Your task to perform on an android device: turn off smart reply in the gmail app Image 0: 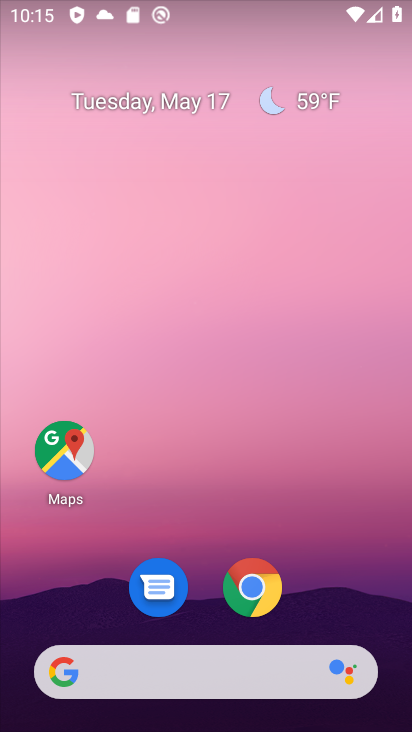
Step 0: drag from (339, 573) to (269, 53)
Your task to perform on an android device: turn off smart reply in the gmail app Image 1: 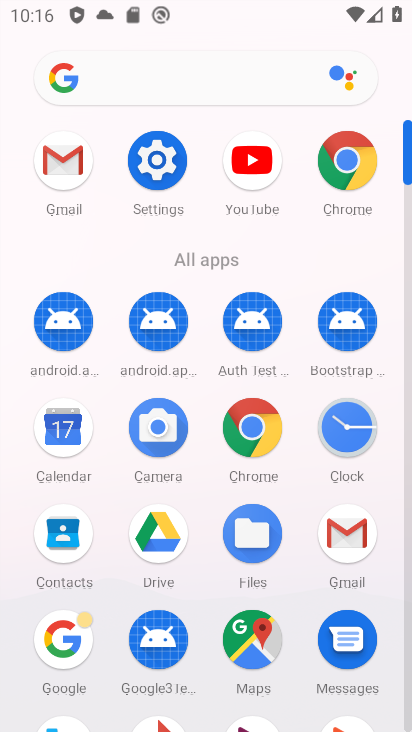
Step 1: click (72, 158)
Your task to perform on an android device: turn off smart reply in the gmail app Image 2: 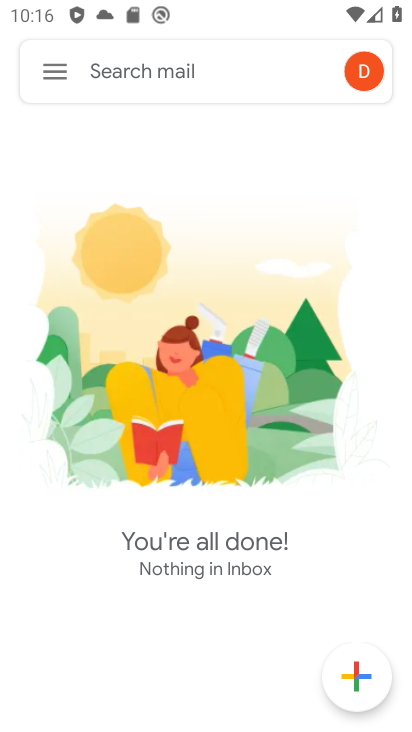
Step 2: click (55, 66)
Your task to perform on an android device: turn off smart reply in the gmail app Image 3: 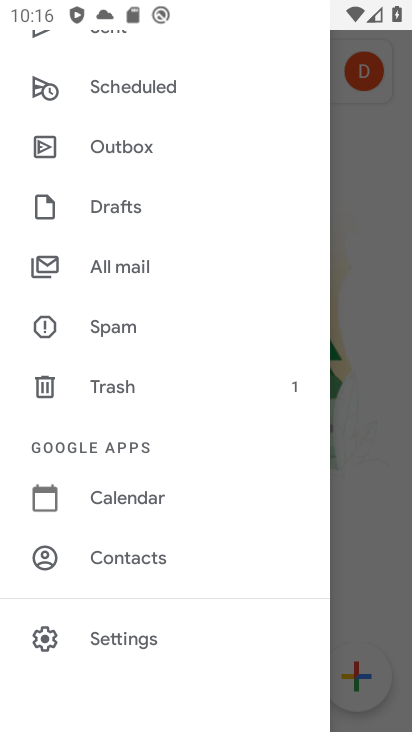
Step 3: drag from (200, 200) to (217, 157)
Your task to perform on an android device: turn off smart reply in the gmail app Image 4: 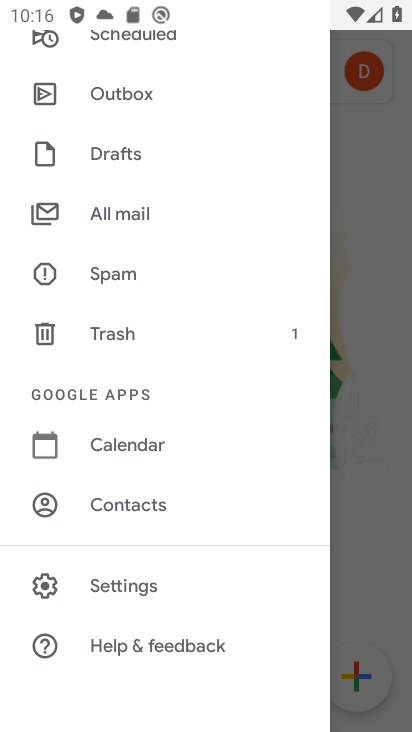
Step 4: click (142, 592)
Your task to perform on an android device: turn off smart reply in the gmail app Image 5: 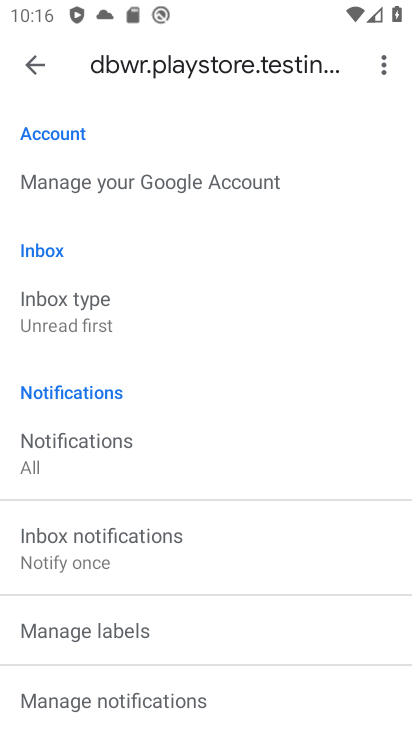
Step 5: drag from (227, 633) to (247, 102)
Your task to perform on an android device: turn off smart reply in the gmail app Image 6: 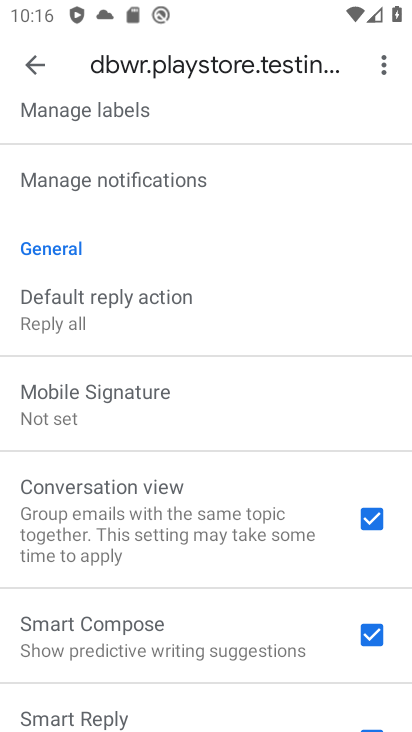
Step 6: drag from (264, 664) to (286, 240)
Your task to perform on an android device: turn off smart reply in the gmail app Image 7: 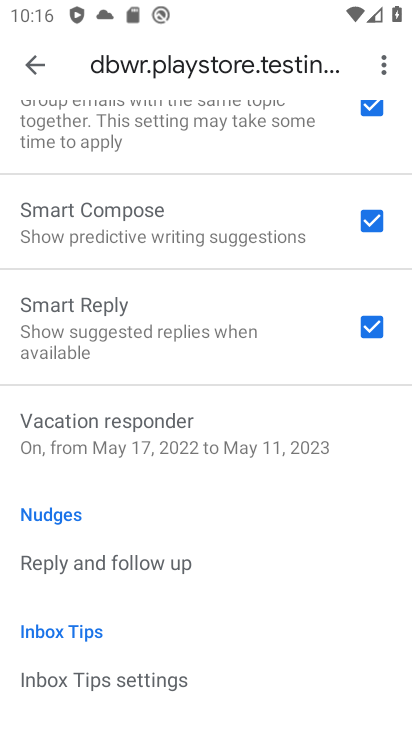
Step 7: click (376, 326)
Your task to perform on an android device: turn off smart reply in the gmail app Image 8: 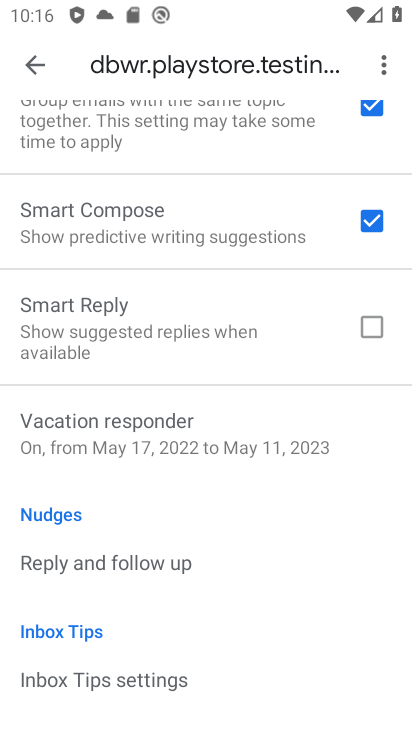
Step 8: task complete